Your task to perform on an android device: Open Android settings Image 0: 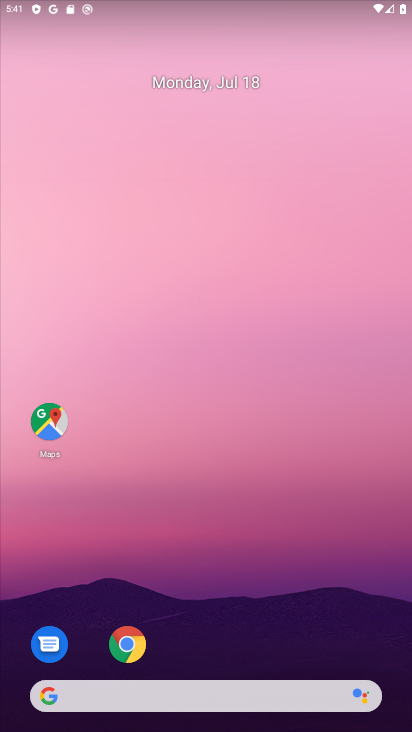
Step 0: press home button
Your task to perform on an android device: Open Android settings Image 1: 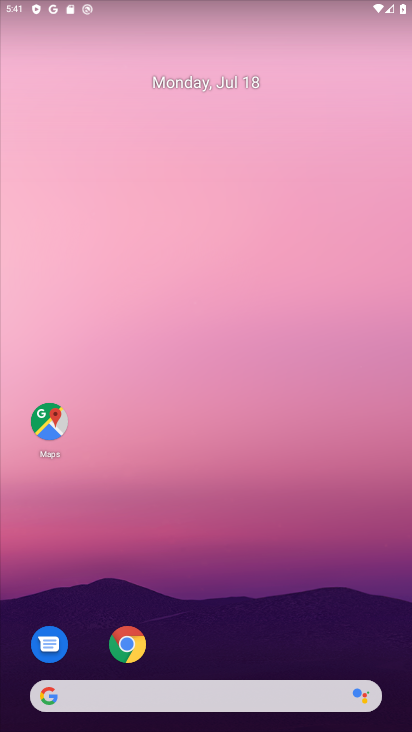
Step 1: drag from (260, 634) to (235, 13)
Your task to perform on an android device: Open Android settings Image 2: 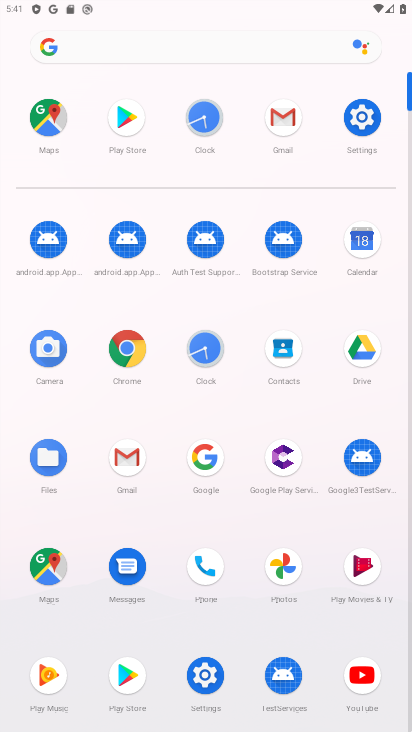
Step 2: click (357, 128)
Your task to perform on an android device: Open Android settings Image 3: 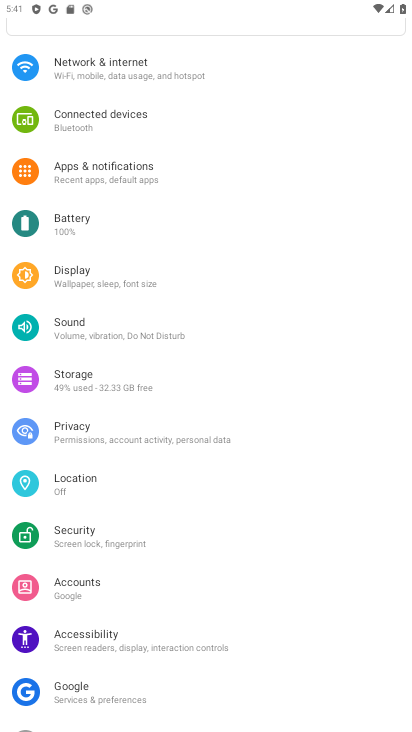
Step 3: task complete